Your task to perform on an android device: install app "Google Docs" Image 0: 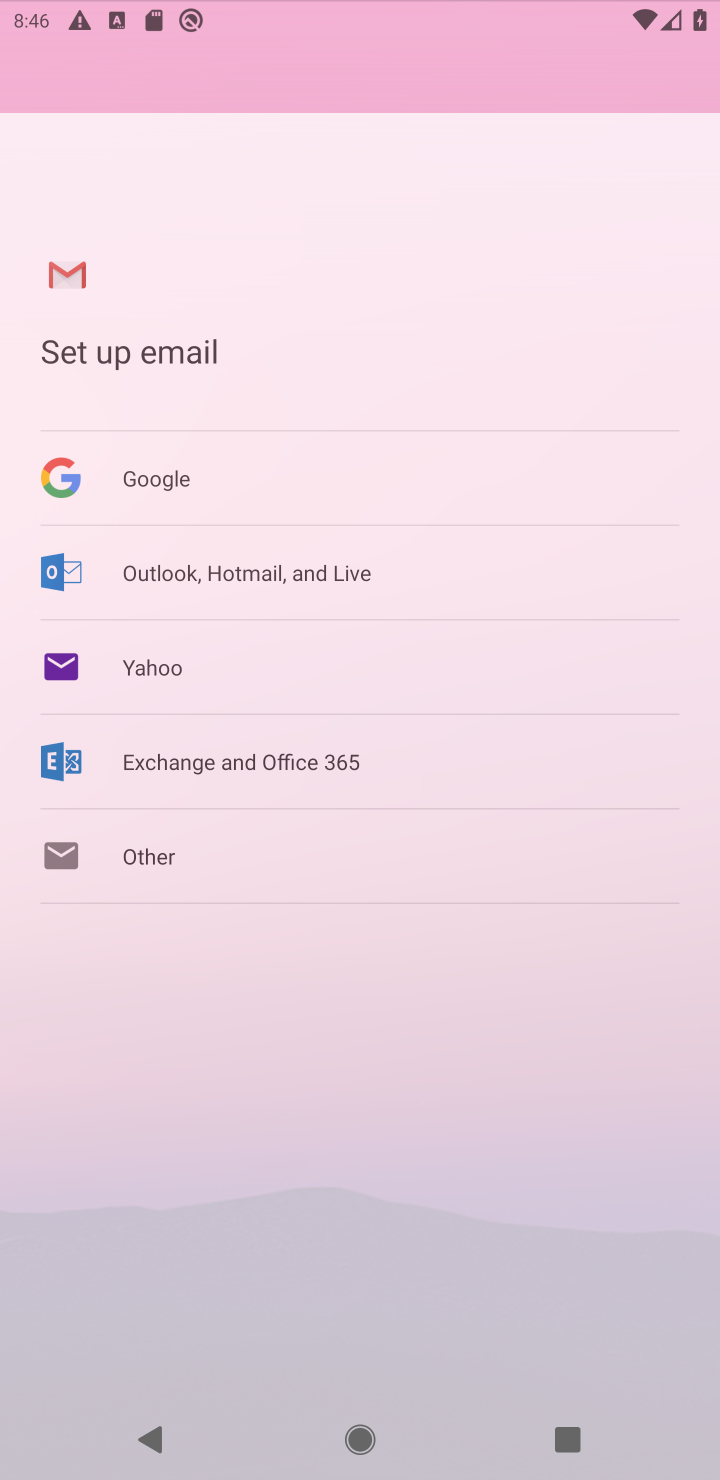
Step 0: press home button
Your task to perform on an android device: install app "Google Docs" Image 1: 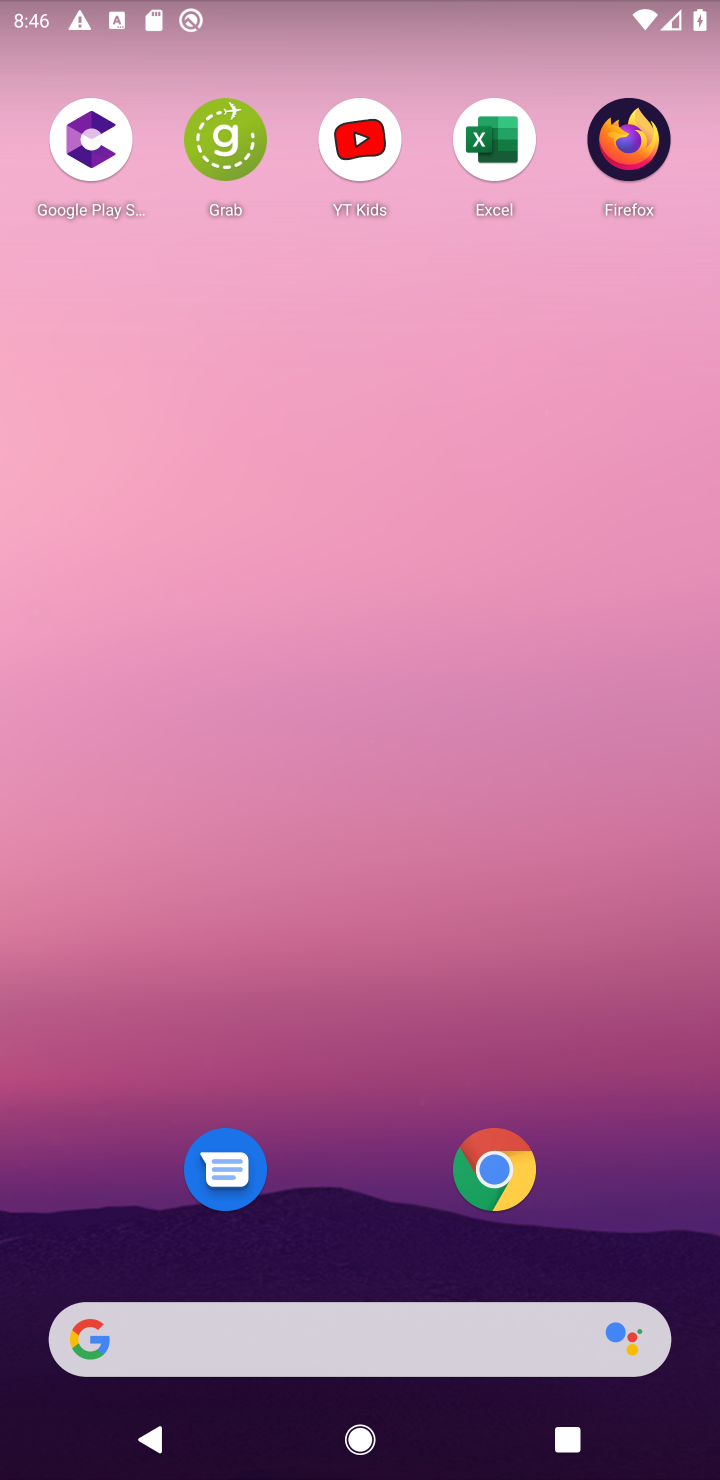
Step 1: click (507, 1168)
Your task to perform on an android device: install app "Google Docs" Image 2: 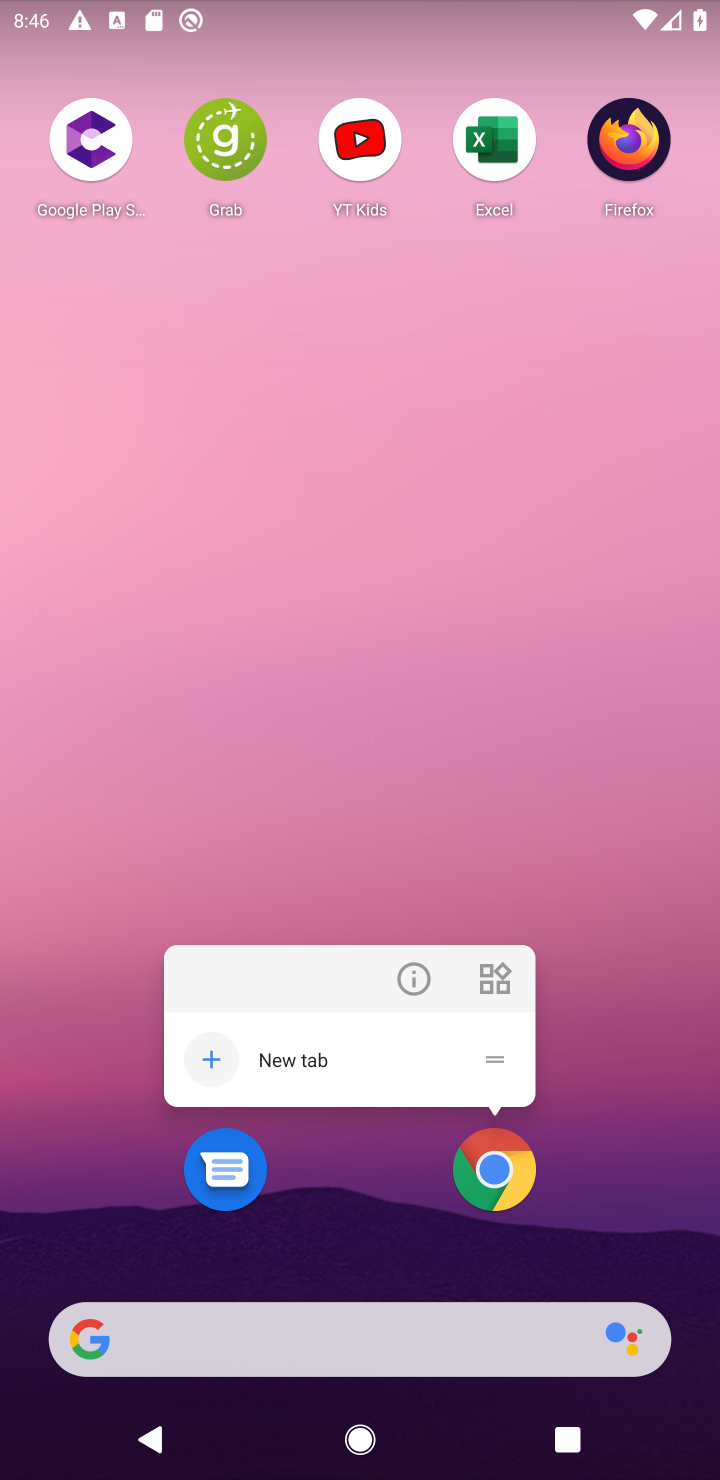
Step 2: click (346, 1248)
Your task to perform on an android device: install app "Google Docs" Image 3: 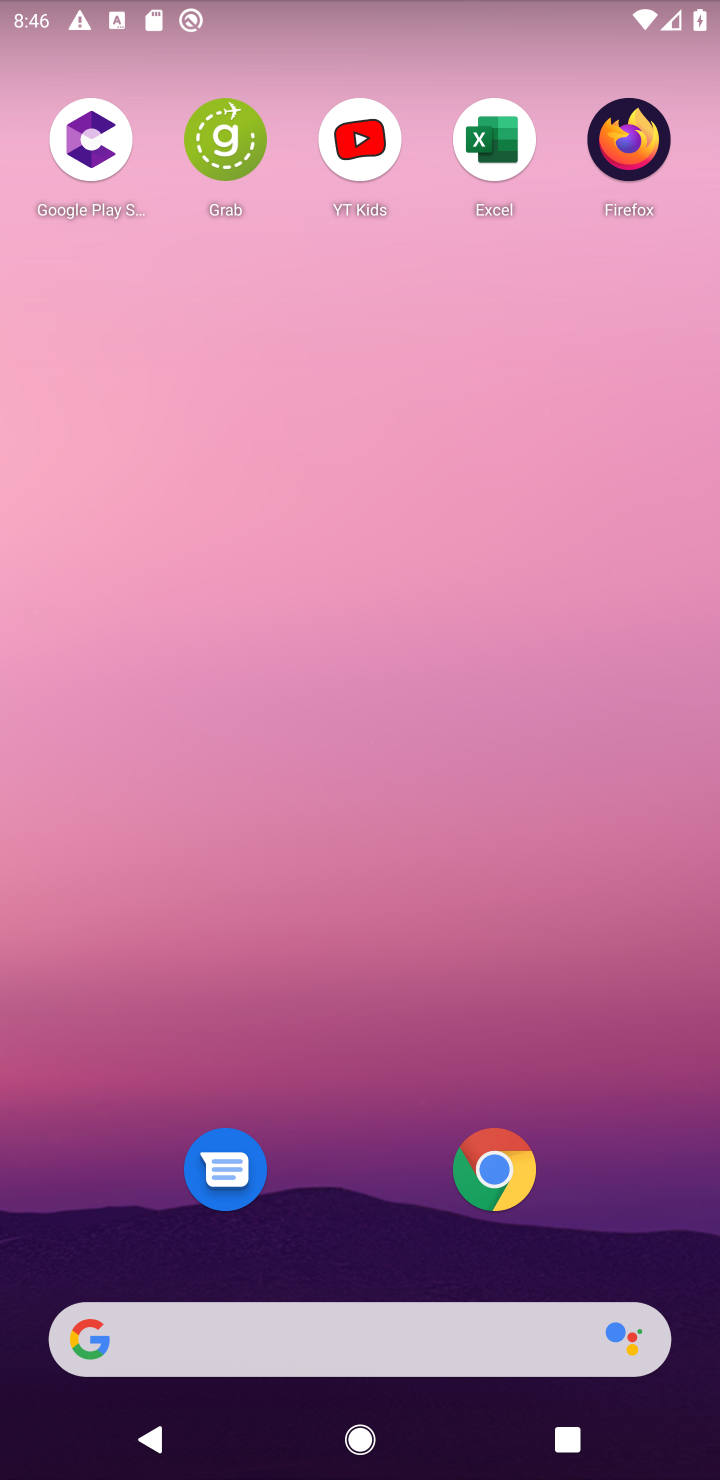
Step 3: drag from (346, 1248) to (448, 9)
Your task to perform on an android device: install app "Google Docs" Image 4: 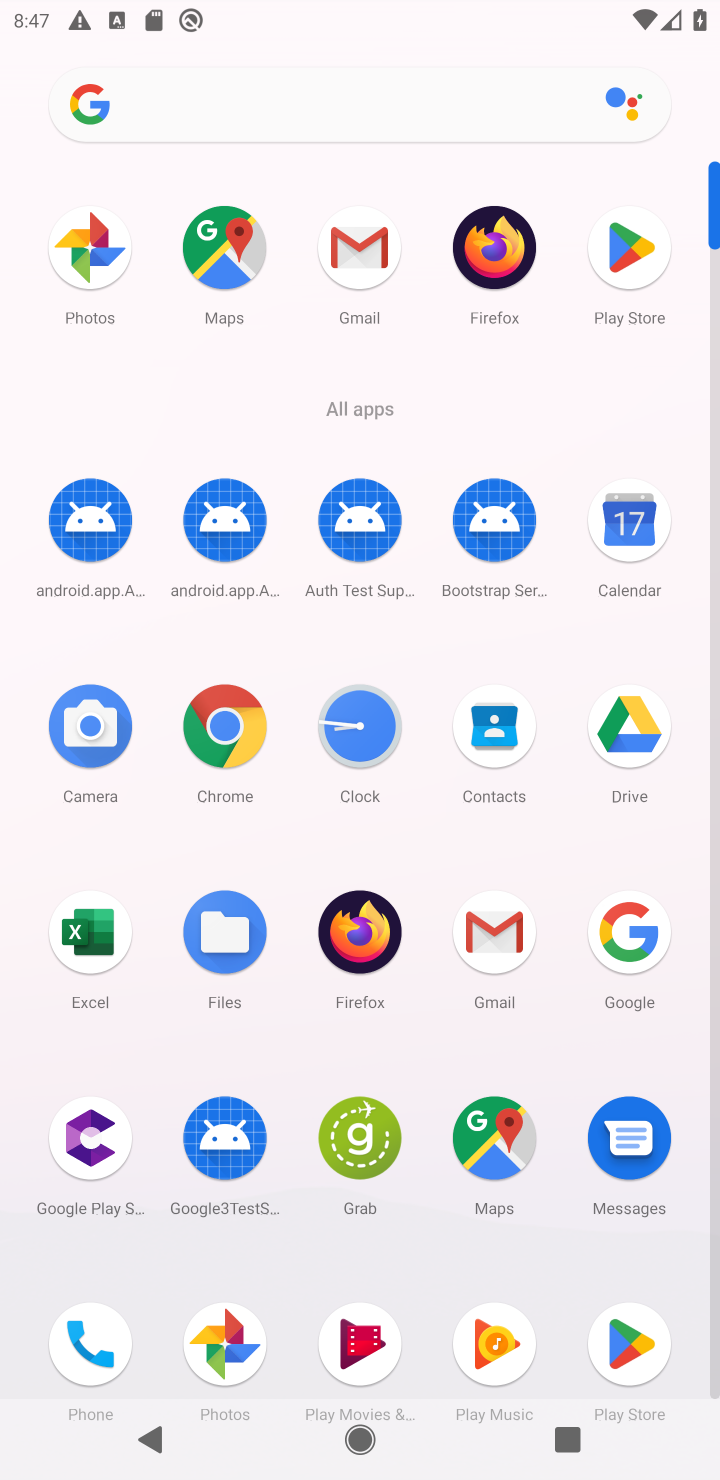
Step 4: click (620, 290)
Your task to perform on an android device: install app "Google Docs" Image 5: 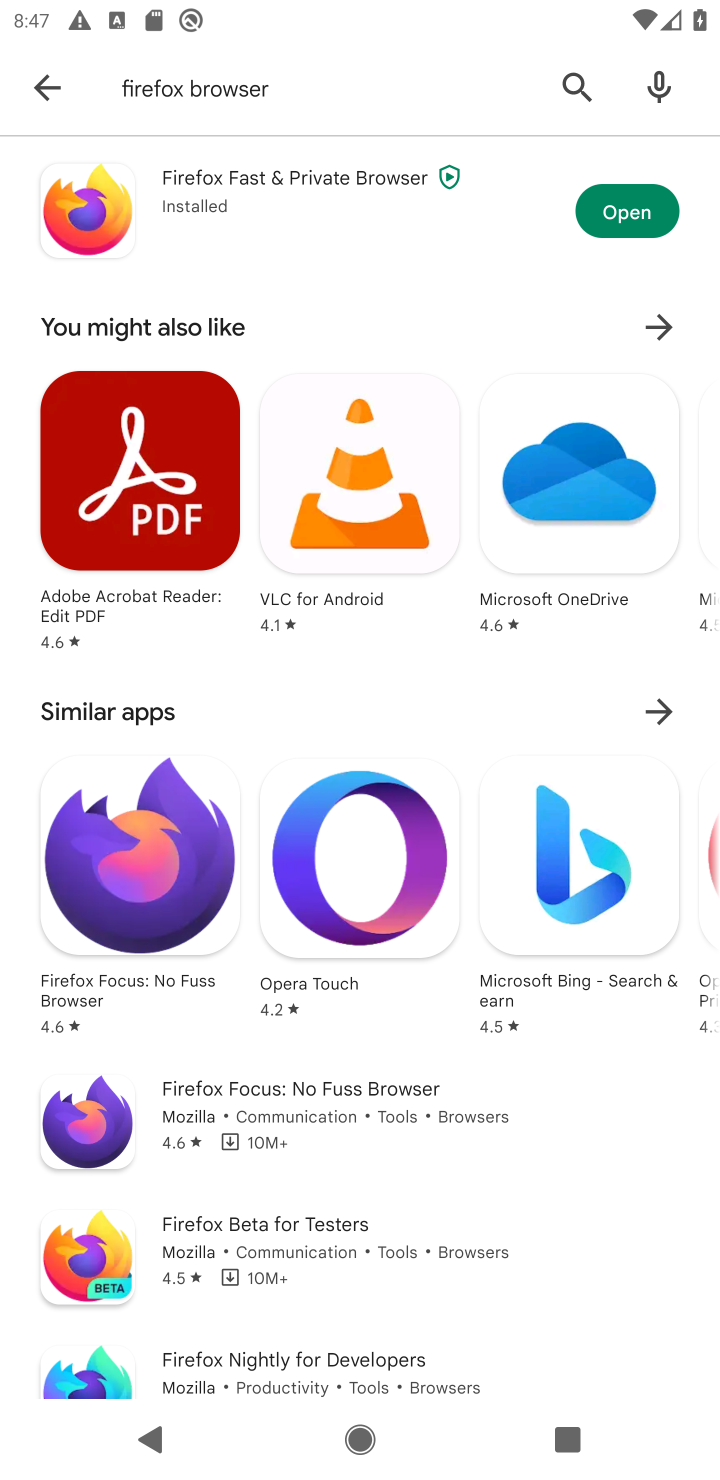
Step 5: click (298, 84)
Your task to perform on an android device: install app "Google Docs" Image 6: 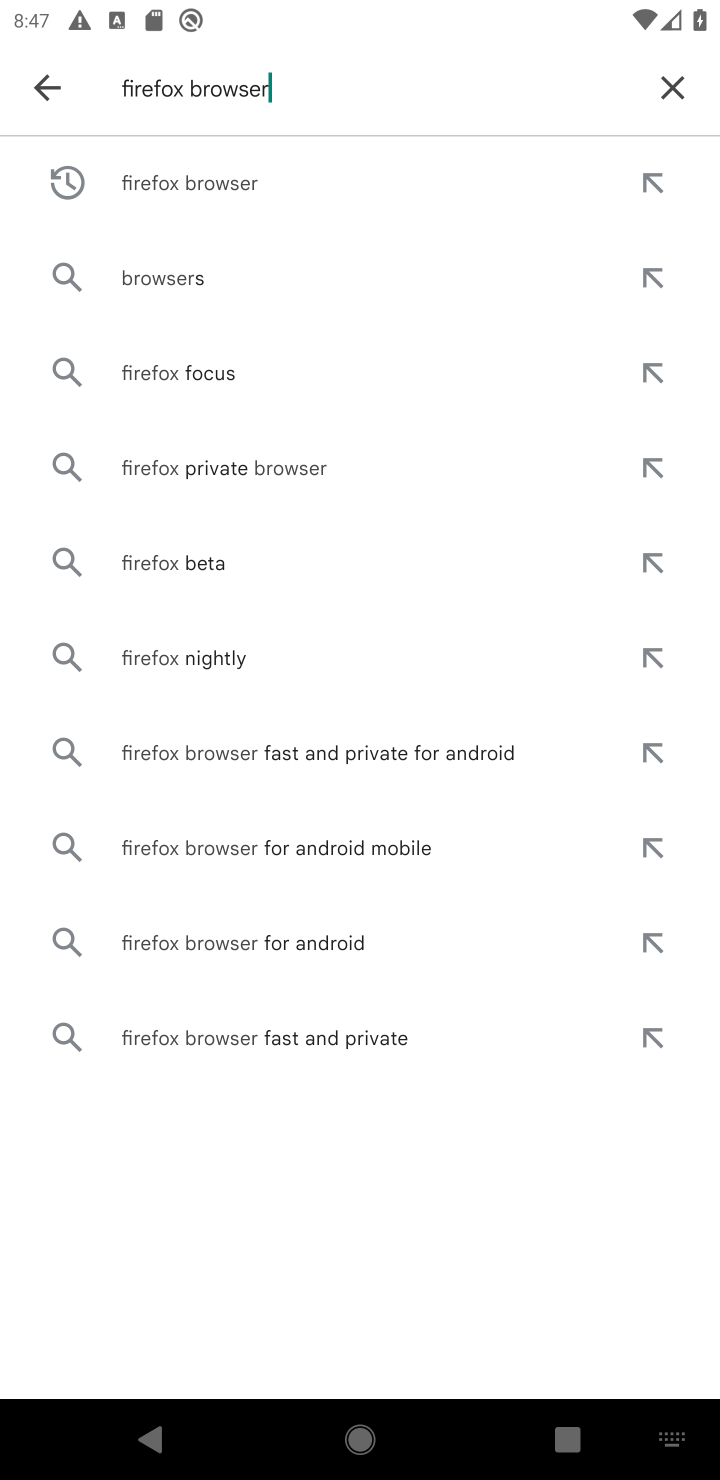
Step 6: click (681, 72)
Your task to perform on an android device: install app "Google Docs" Image 7: 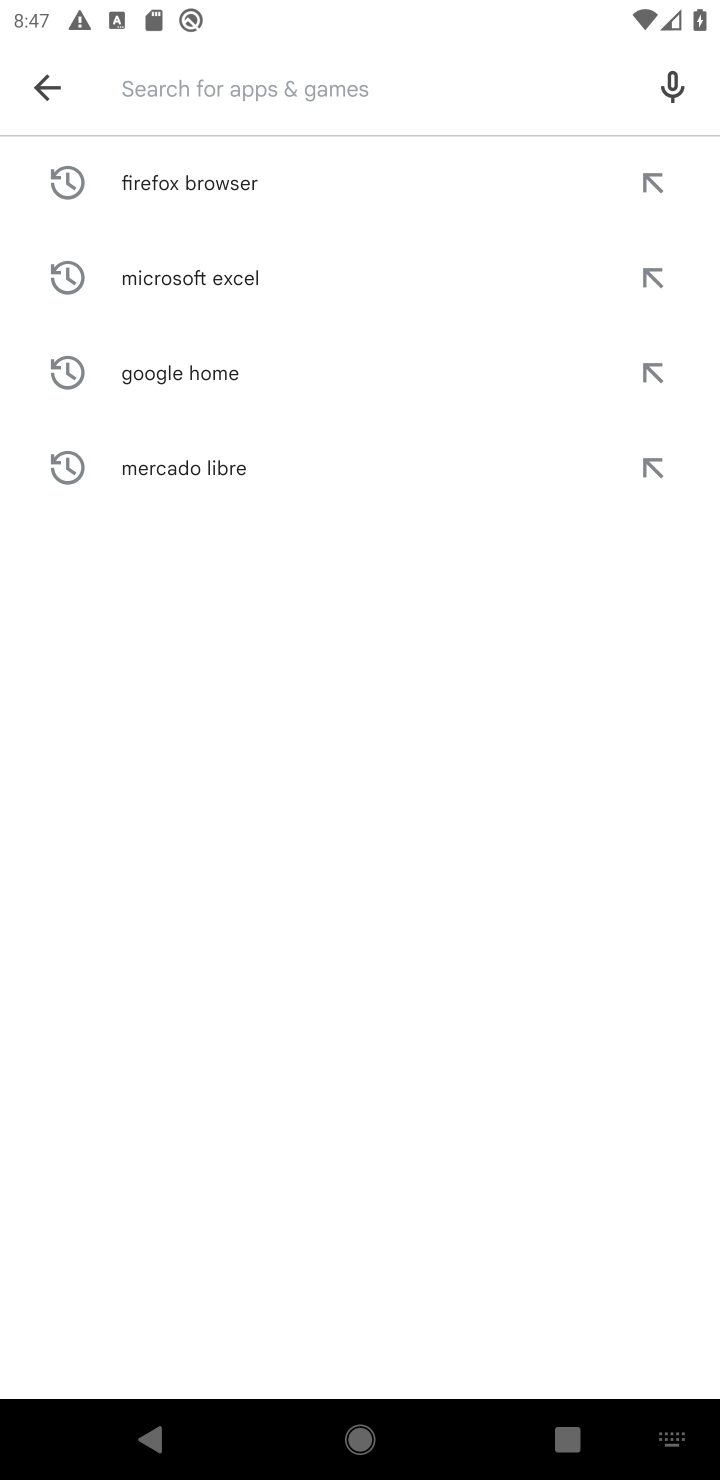
Step 7: type "googlw docs"
Your task to perform on an android device: install app "Google Docs" Image 8: 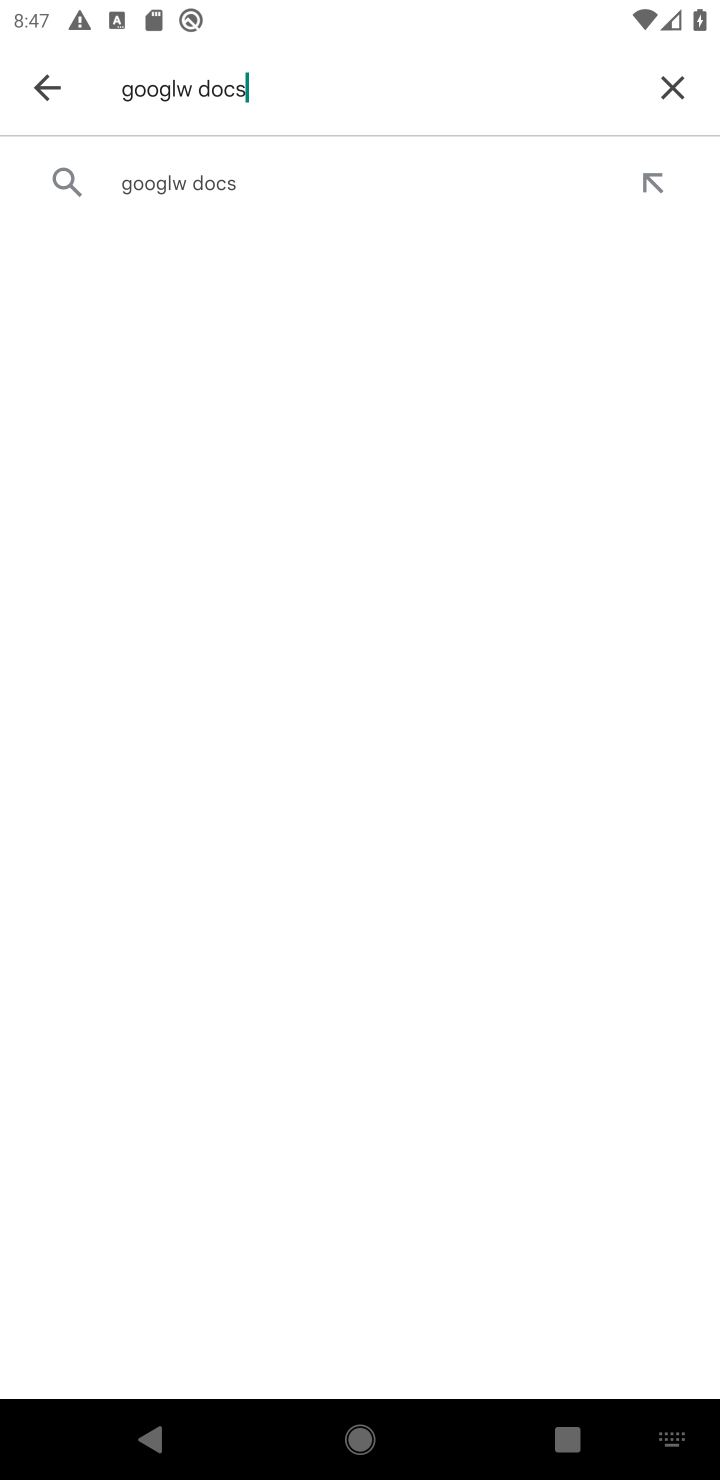
Step 8: click (194, 165)
Your task to perform on an android device: install app "Google Docs" Image 9: 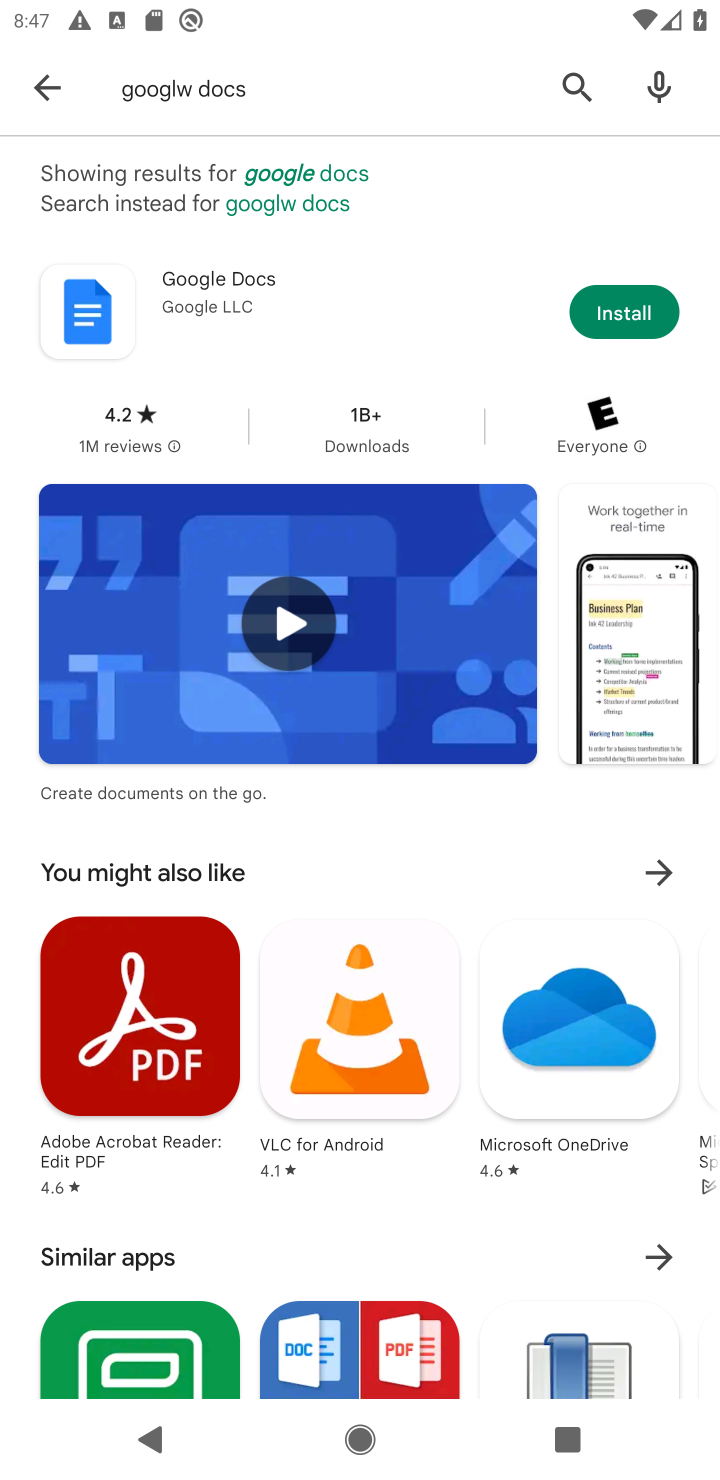
Step 9: click (635, 292)
Your task to perform on an android device: install app "Google Docs" Image 10: 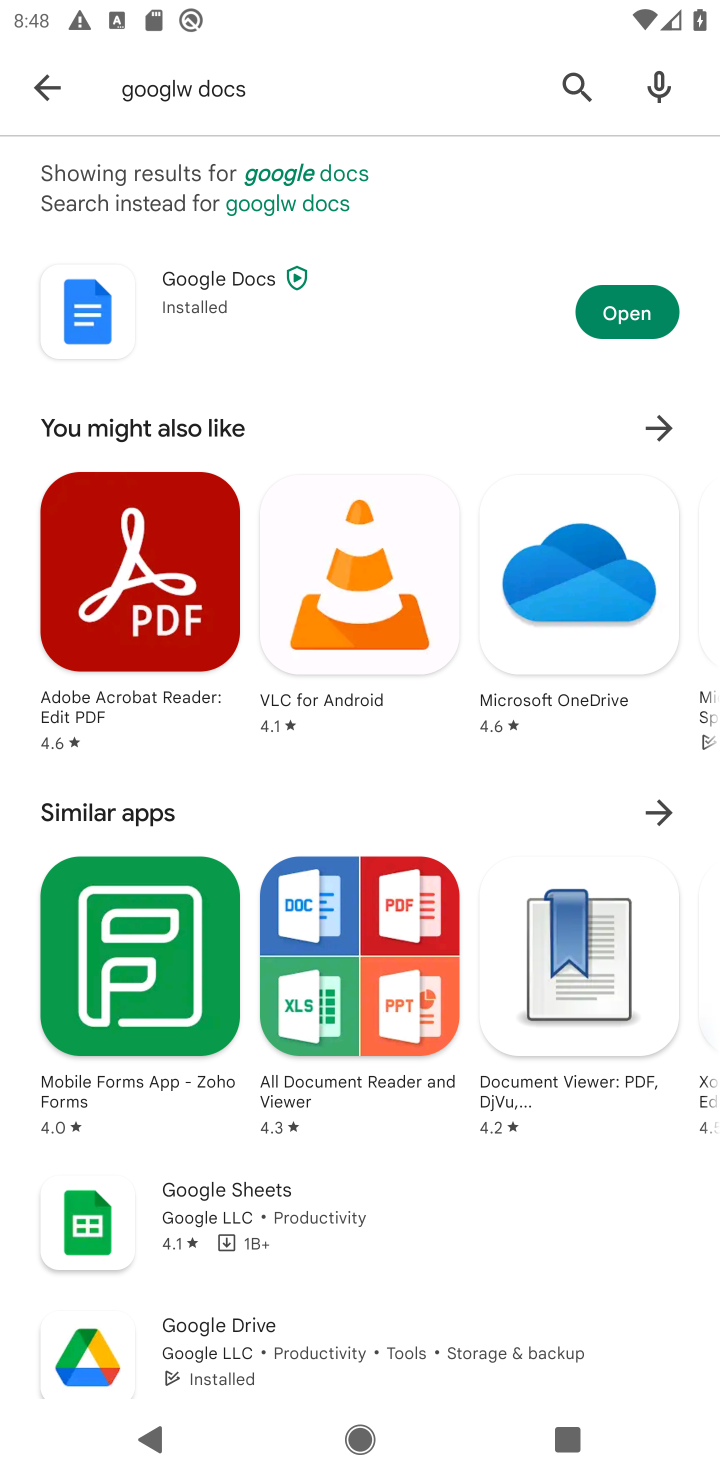
Step 10: task complete